Your task to perform on an android device: turn off location Image 0: 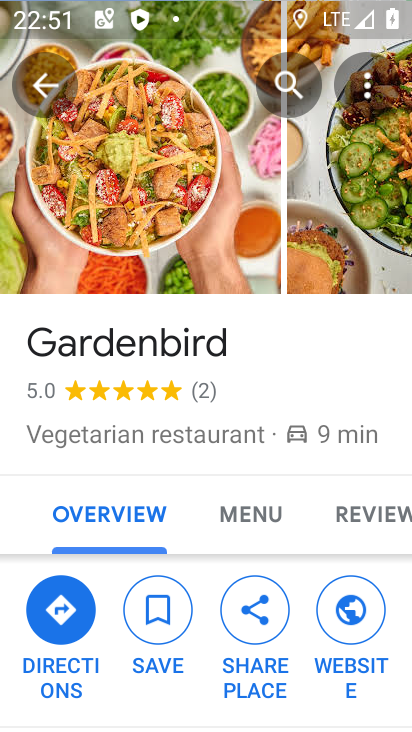
Step 0: press home button
Your task to perform on an android device: turn off location Image 1: 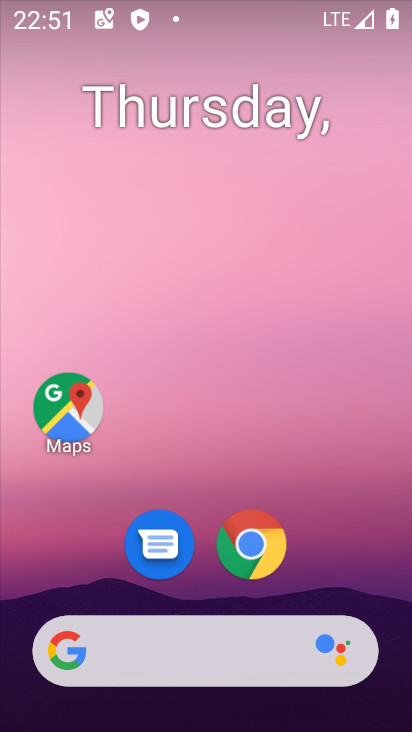
Step 1: drag from (350, 558) to (215, 242)
Your task to perform on an android device: turn off location Image 2: 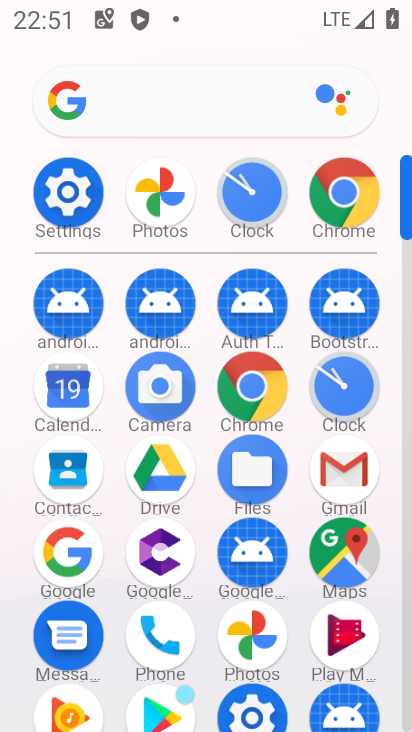
Step 2: click (249, 701)
Your task to perform on an android device: turn off location Image 3: 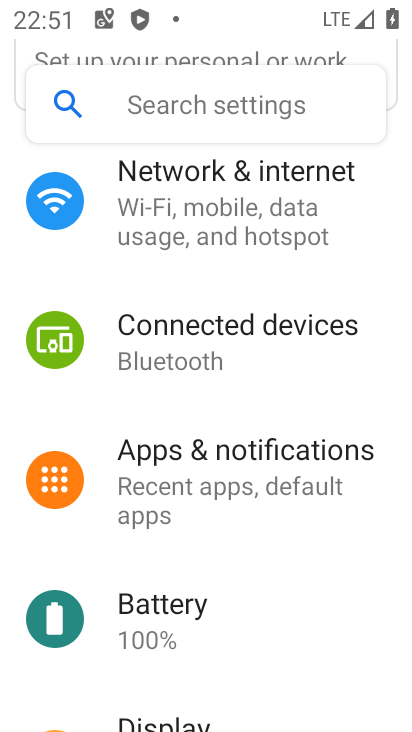
Step 3: click (234, 666)
Your task to perform on an android device: turn off location Image 4: 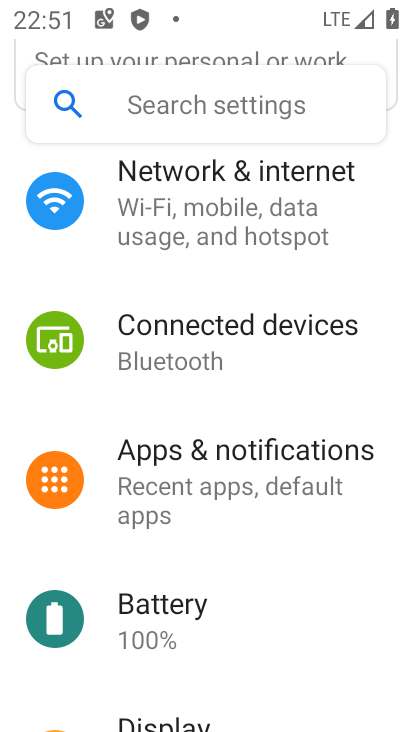
Step 4: drag from (225, 558) to (222, 232)
Your task to perform on an android device: turn off location Image 5: 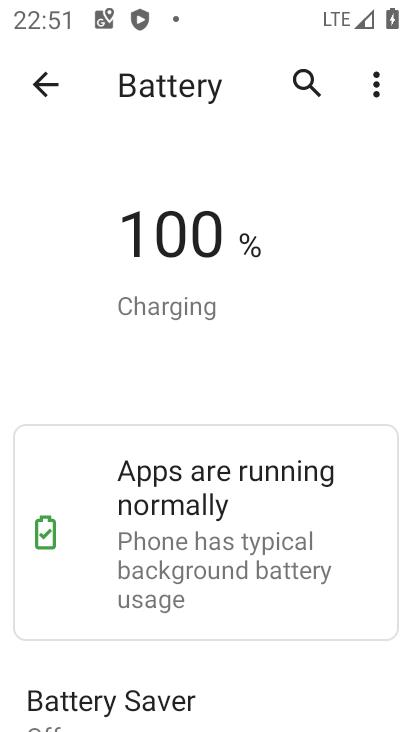
Step 5: click (44, 73)
Your task to perform on an android device: turn off location Image 6: 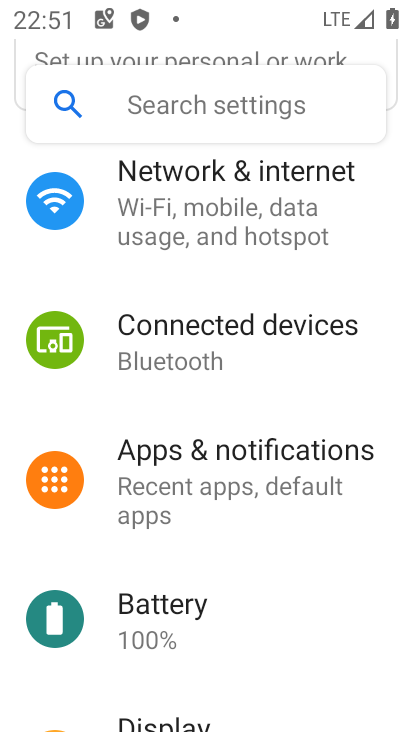
Step 6: drag from (221, 680) to (208, 209)
Your task to perform on an android device: turn off location Image 7: 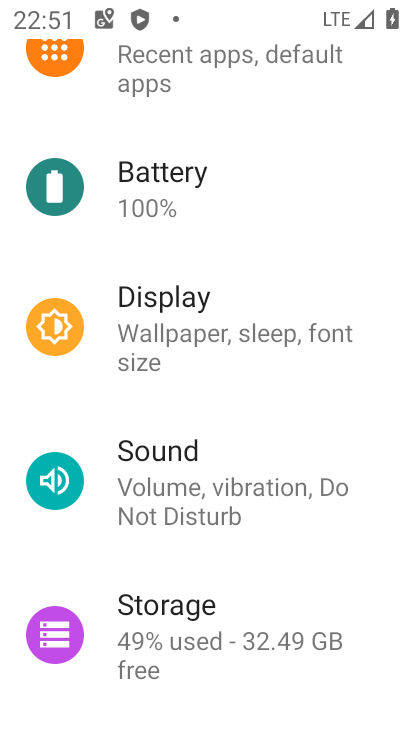
Step 7: drag from (147, 718) to (162, 243)
Your task to perform on an android device: turn off location Image 8: 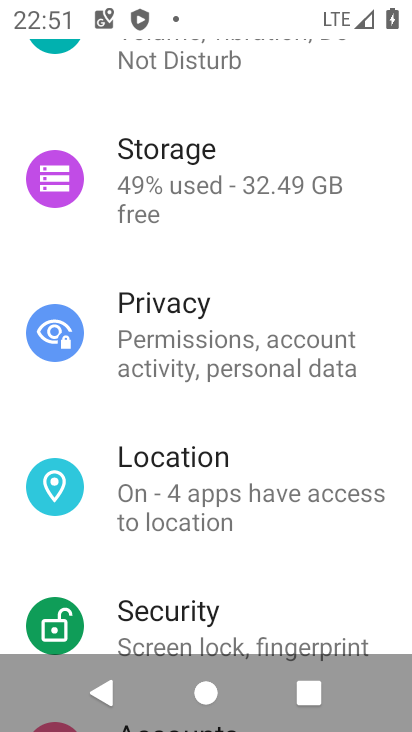
Step 8: click (164, 511)
Your task to perform on an android device: turn off location Image 9: 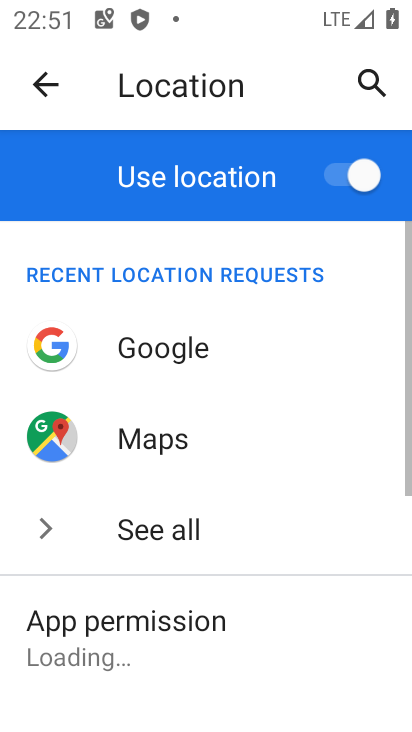
Step 9: click (354, 194)
Your task to perform on an android device: turn off location Image 10: 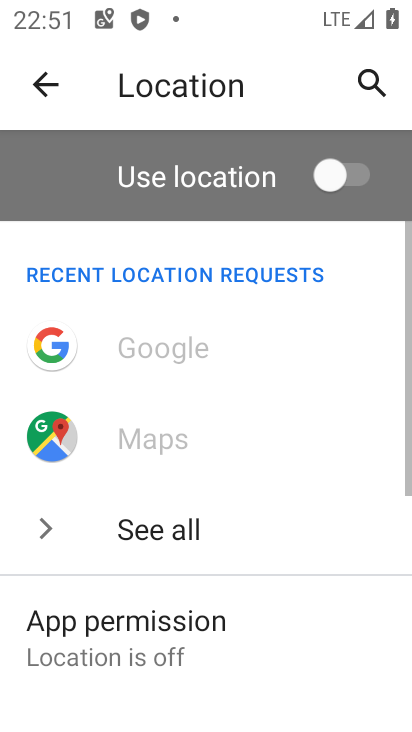
Step 10: task complete